Your task to perform on an android device: check the backup settings in the google photos Image 0: 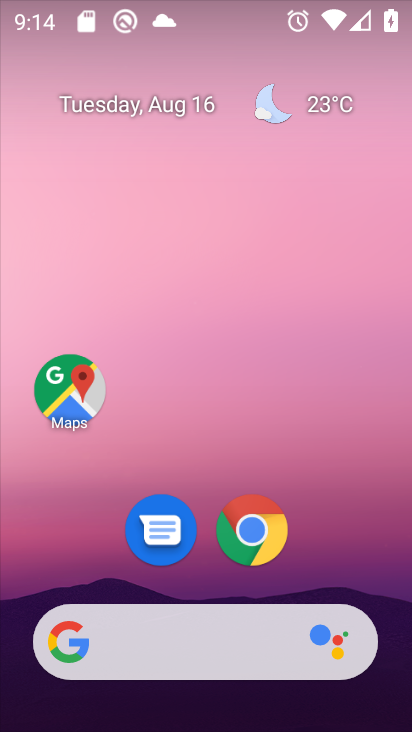
Step 0: drag from (353, 521) to (331, 89)
Your task to perform on an android device: check the backup settings in the google photos Image 1: 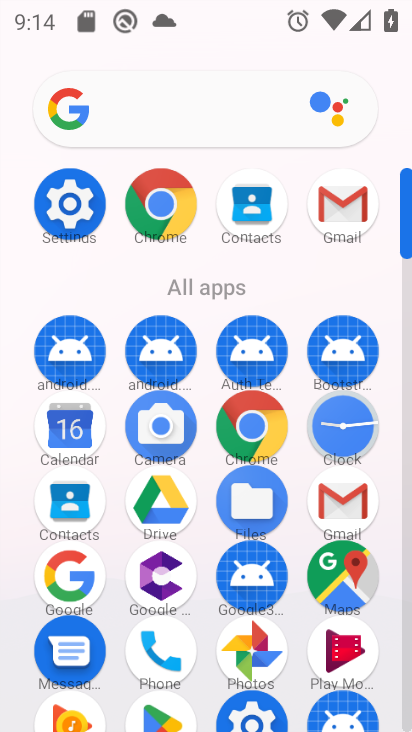
Step 1: click (250, 661)
Your task to perform on an android device: check the backup settings in the google photos Image 2: 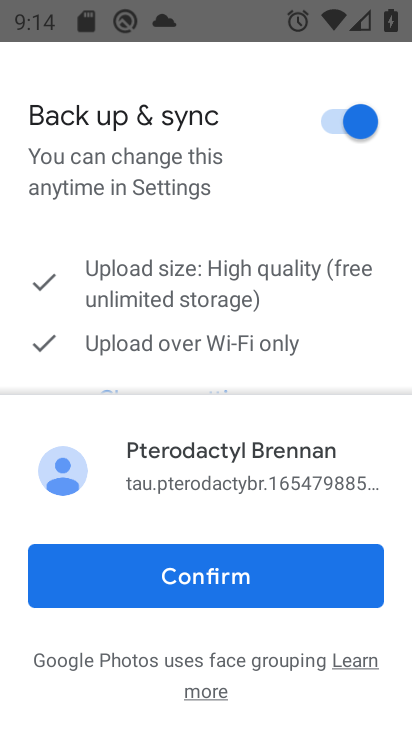
Step 2: click (249, 580)
Your task to perform on an android device: check the backup settings in the google photos Image 3: 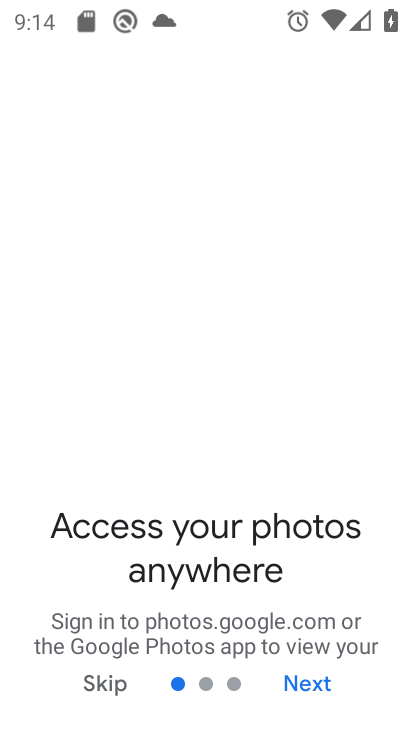
Step 3: click (324, 677)
Your task to perform on an android device: check the backup settings in the google photos Image 4: 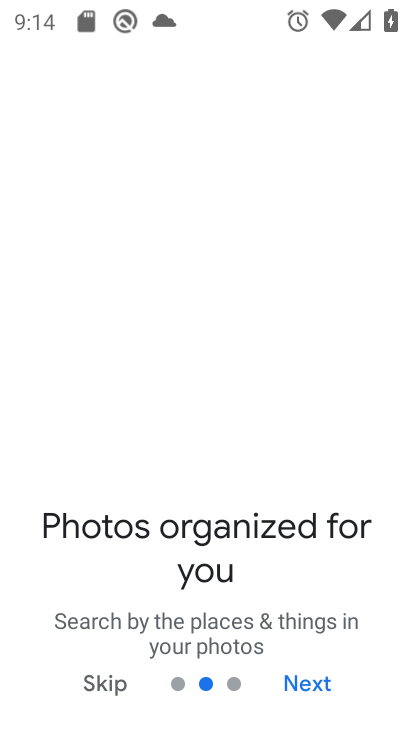
Step 4: click (324, 677)
Your task to perform on an android device: check the backup settings in the google photos Image 5: 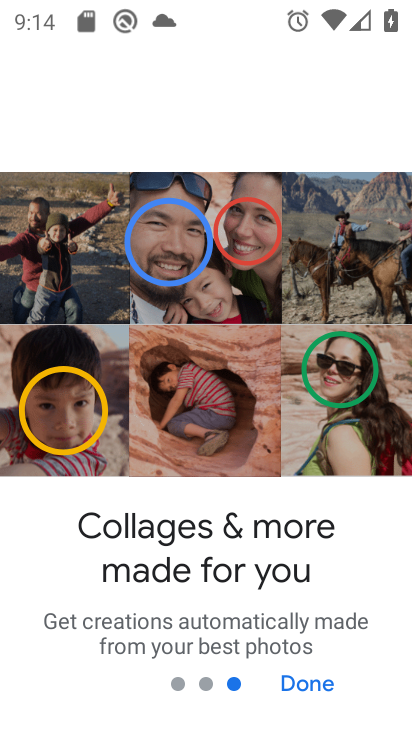
Step 5: click (324, 677)
Your task to perform on an android device: check the backup settings in the google photos Image 6: 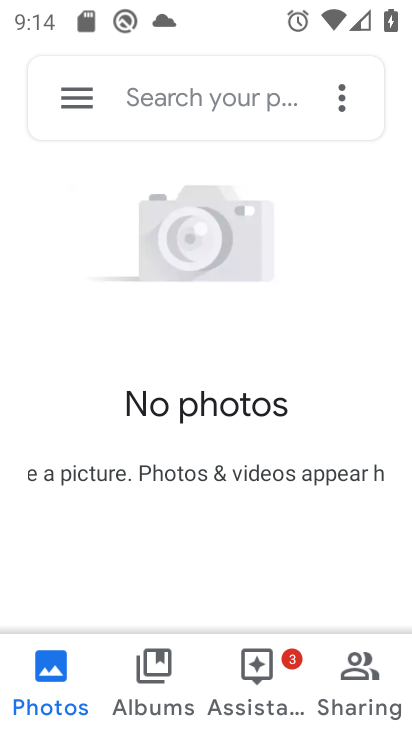
Step 6: click (66, 89)
Your task to perform on an android device: check the backup settings in the google photos Image 7: 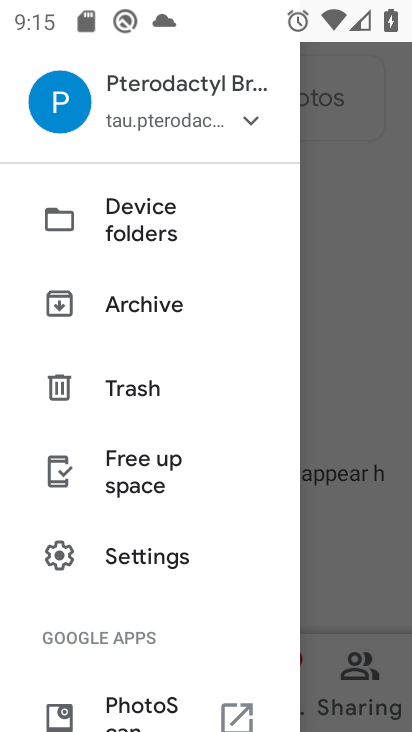
Step 7: click (171, 557)
Your task to perform on an android device: check the backup settings in the google photos Image 8: 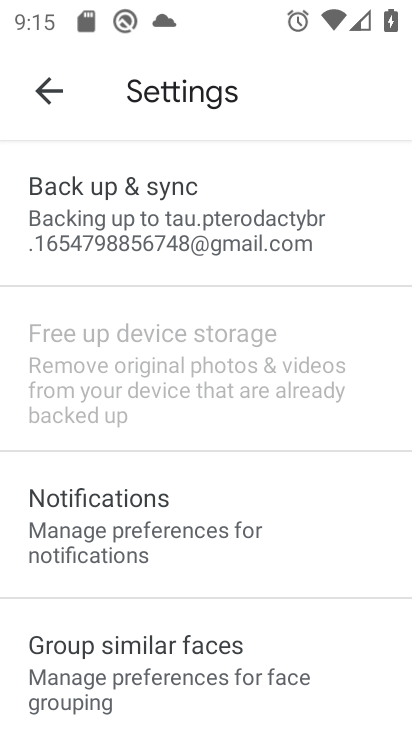
Step 8: click (164, 217)
Your task to perform on an android device: check the backup settings in the google photos Image 9: 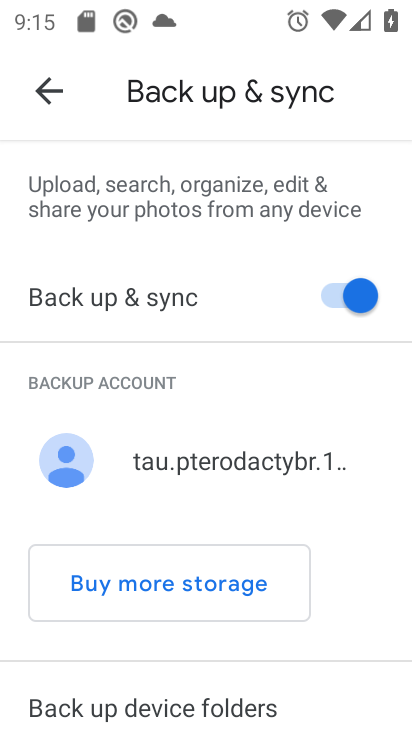
Step 9: drag from (216, 696) to (310, 326)
Your task to perform on an android device: check the backup settings in the google photos Image 10: 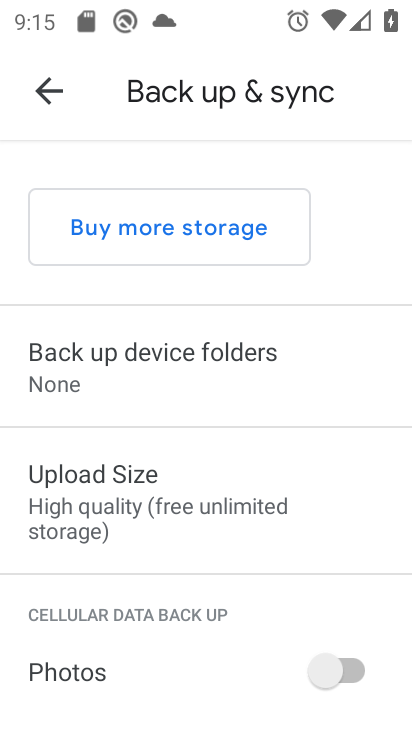
Step 10: click (196, 504)
Your task to perform on an android device: check the backup settings in the google photos Image 11: 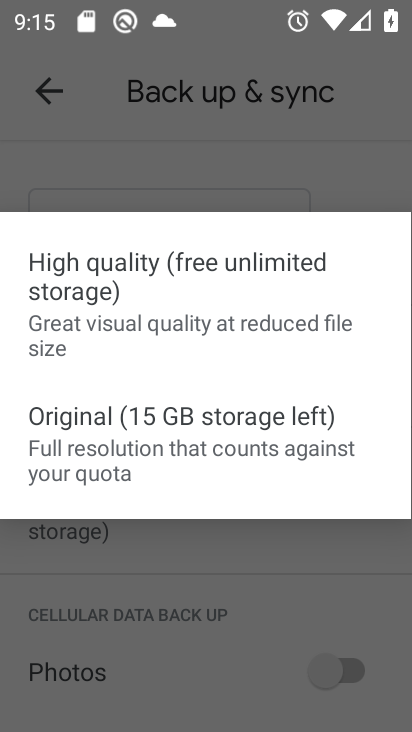
Step 11: click (204, 421)
Your task to perform on an android device: check the backup settings in the google photos Image 12: 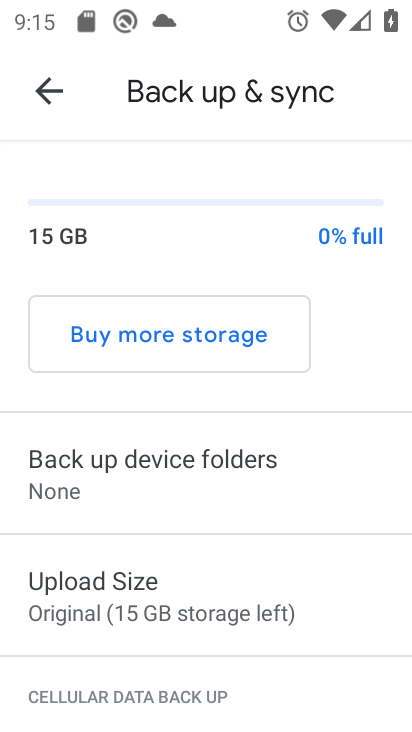
Step 12: task complete